Your task to perform on an android device: Open maps Image 0: 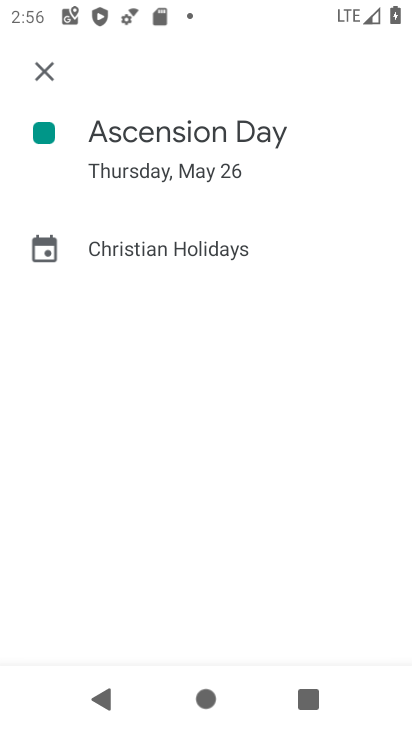
Step 0: press home button
Your task to perform on an android device: Open maps Image 1: 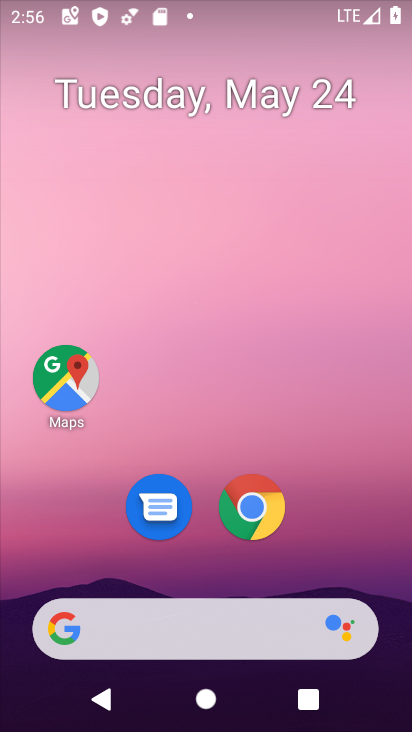
Step 1: click (74, 366)
Your task to perform on an android device: Open maps Image 2: 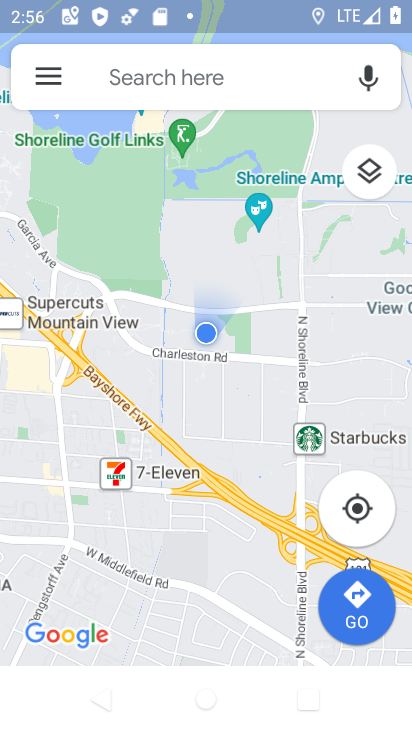
Step 2: task complete